Your task to perform on an android device: read, delete, or share a saved page in the chrome app Image 0: 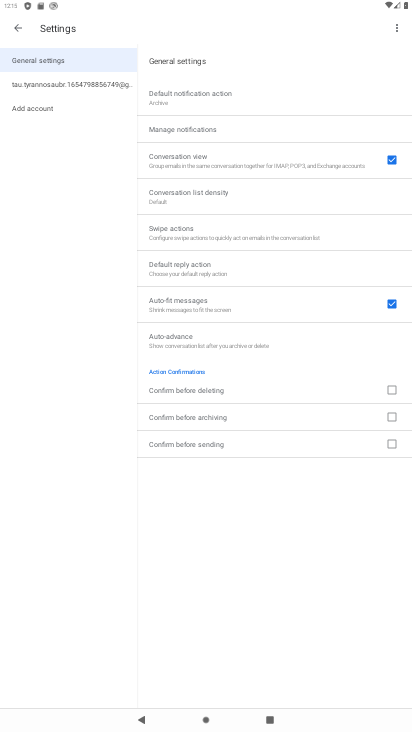
Step 0: press home button
Your task to perform on an android device: read, delete, or share a saved page in the chrome app Image 1: 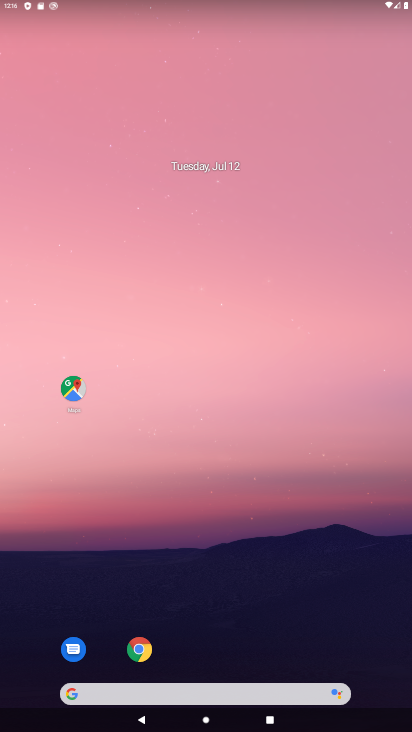
Step 1: click (142, 651)
Your task to perform on an android device: read, delete, or share a saved page in the chrome app Image 2: 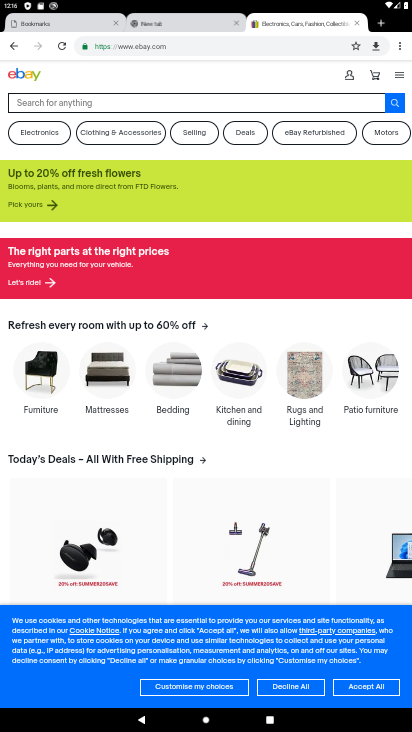
Step 2: click (396, 46)
Your task to perform on an android device: read, delete, or share a saved page in the chrome app Image 3: 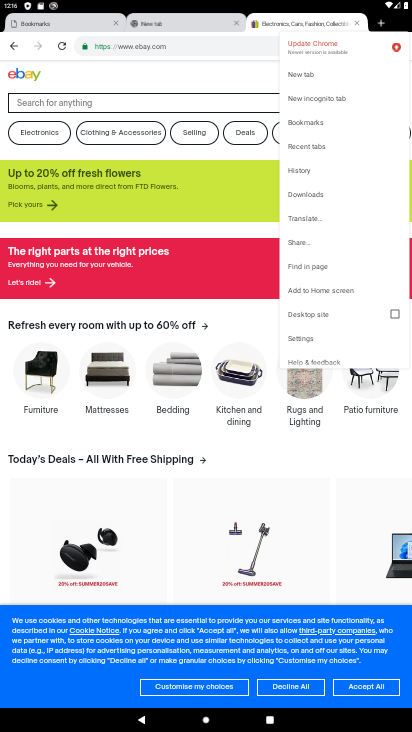
Step 3: click (327, 200)
Your task to perform on an android device: read, delete, or share a saved page in the chrome app Image 4: 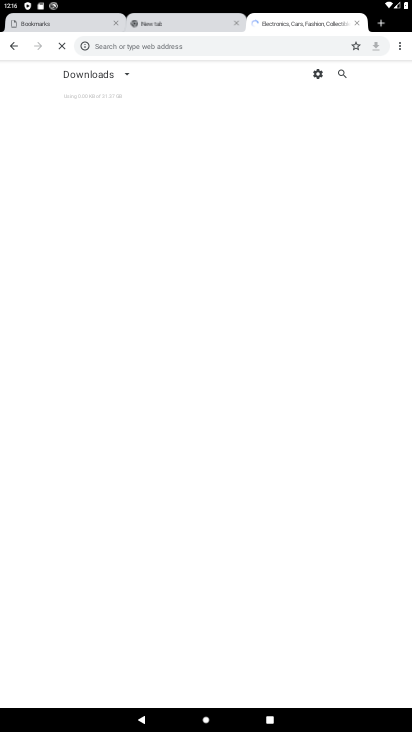
Step 4: task complete